Your task to perform on an android device: Open Google Image 0: 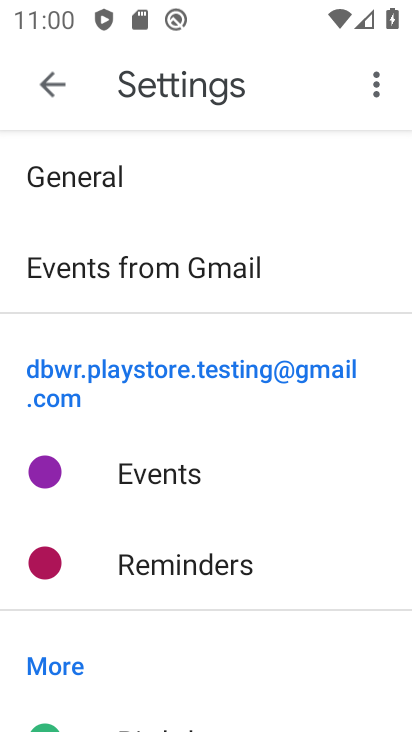
Step 0: press home button
Your task to perform on an android device: Open Google Image 1: 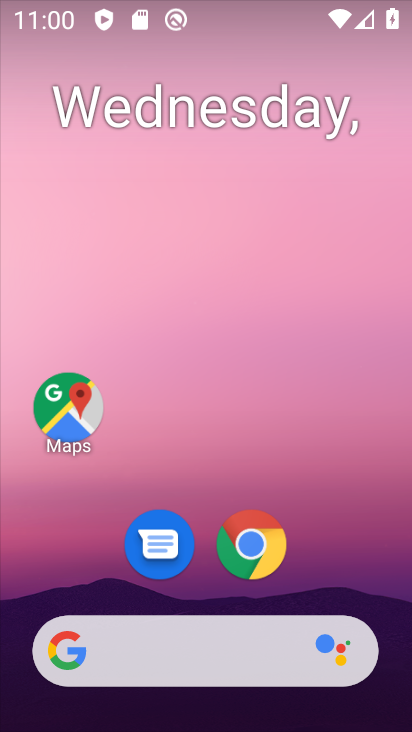
Step 1: click (250, 556)
Your task to perform on an android device: Open Google Image 2: 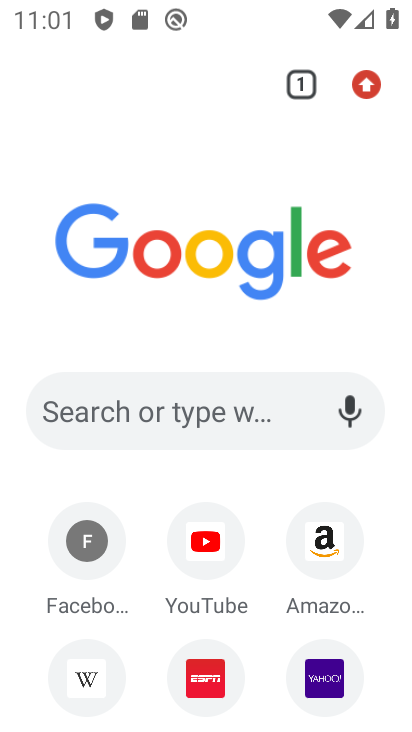
Step 2: click (197, 423)
Your task to perform on an android device: Open Google Image 3: 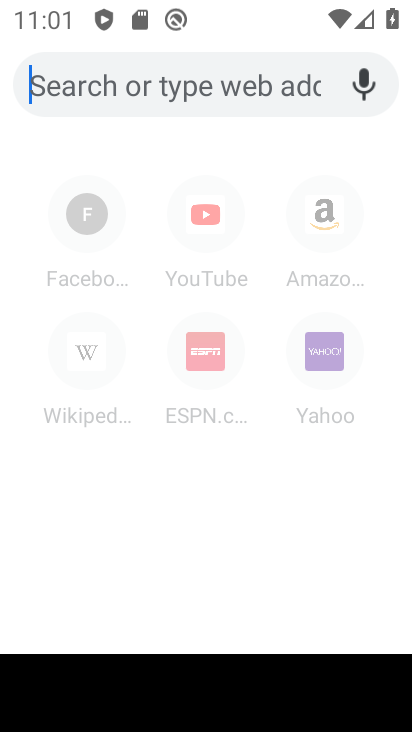
Step 3: type "google"
Your task to perform on an android device: Open Google Image 4: 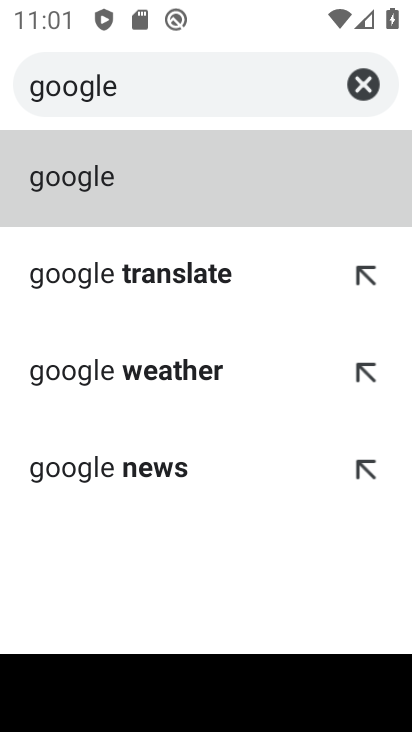
Step 4: click (103, 184)
Your task to perform on an android device: Open Google Image 5: 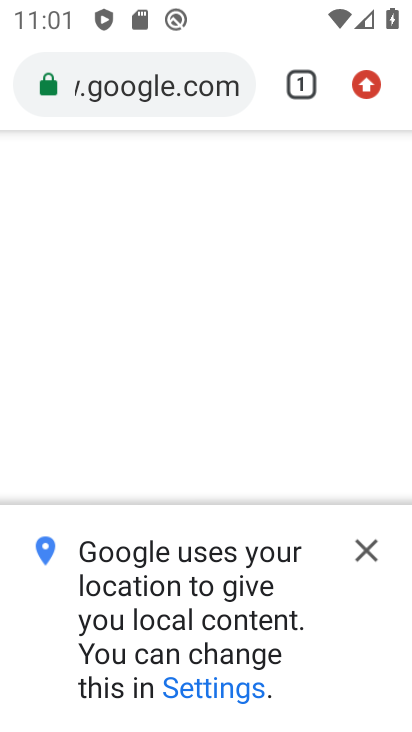
Step 5: click (372, 553)
Your task to perform on an android device: Open Google Image 6: 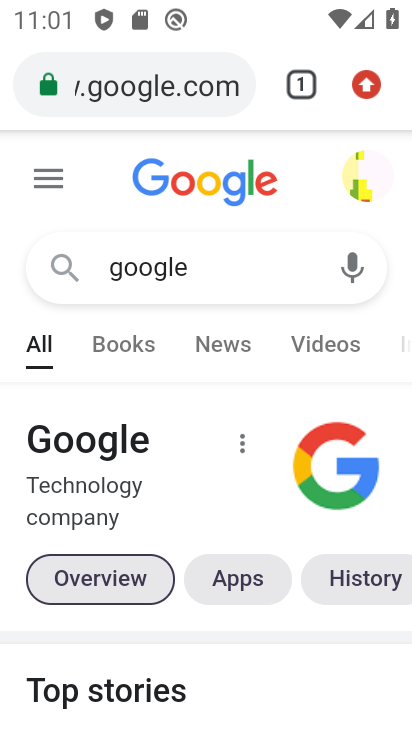
Step 6: task complete